Your task to perform on an android device: Go to sound settings Image 0: 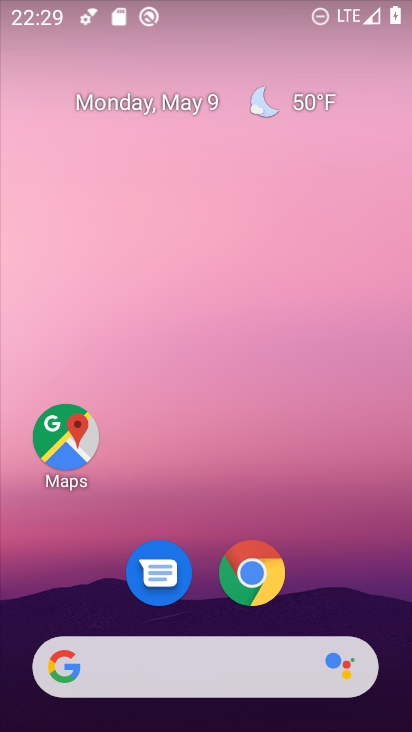
Step 0: drag from (338, 573) to (324, 171)
Your task to perform on an android device: Go to sound settings Image 1: 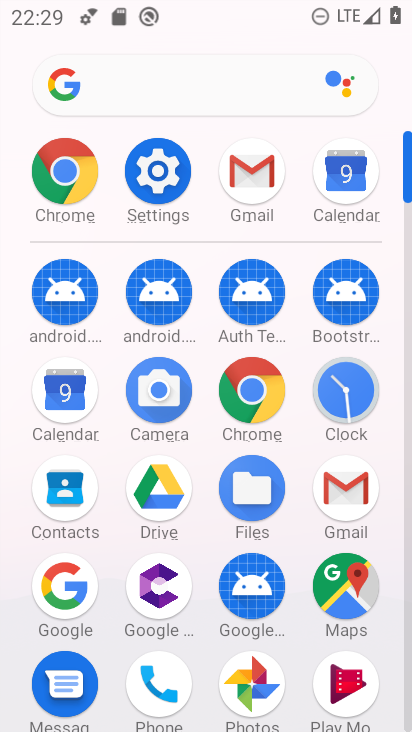
Step 1: click (174, 187)
Your task to perform on an android device: Go to sound settings Image 2: 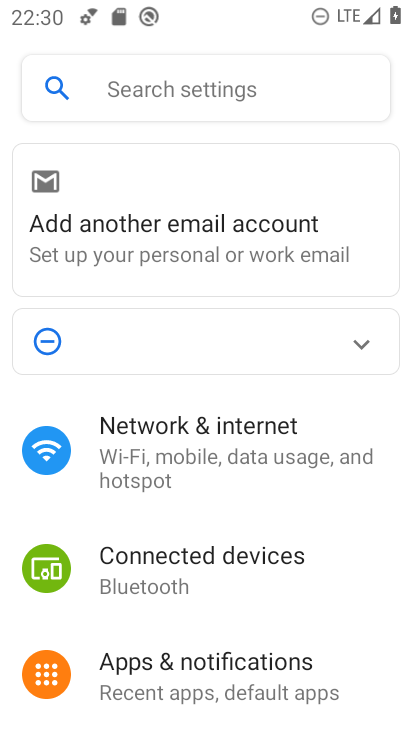
Step 2: drag from (313, 658) to (259, 204)
Your task to perform on an android device: Go to sound settings Image 3: 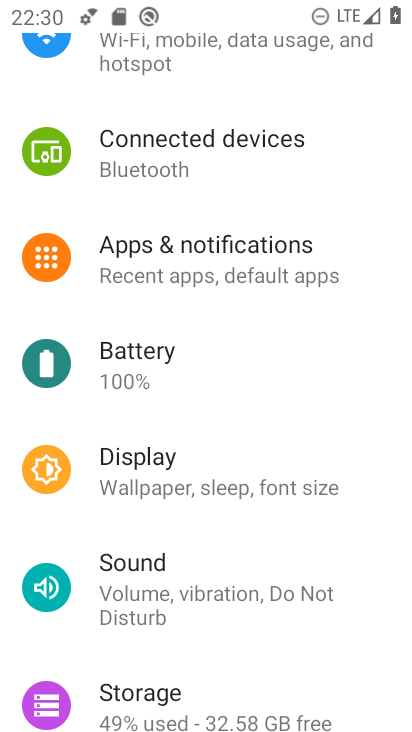
Step 3: click (158, 582)
Your task to perform on an android device: Go to sound settings Image 4: 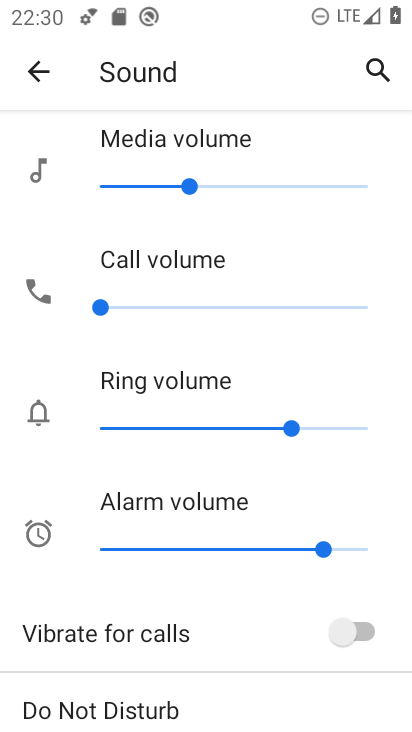
Step 4: task complete